Your task to perform on an android device: Search for "macbook" on walmart, select the first entry, add it to the cart, then select checkout. Image 0: 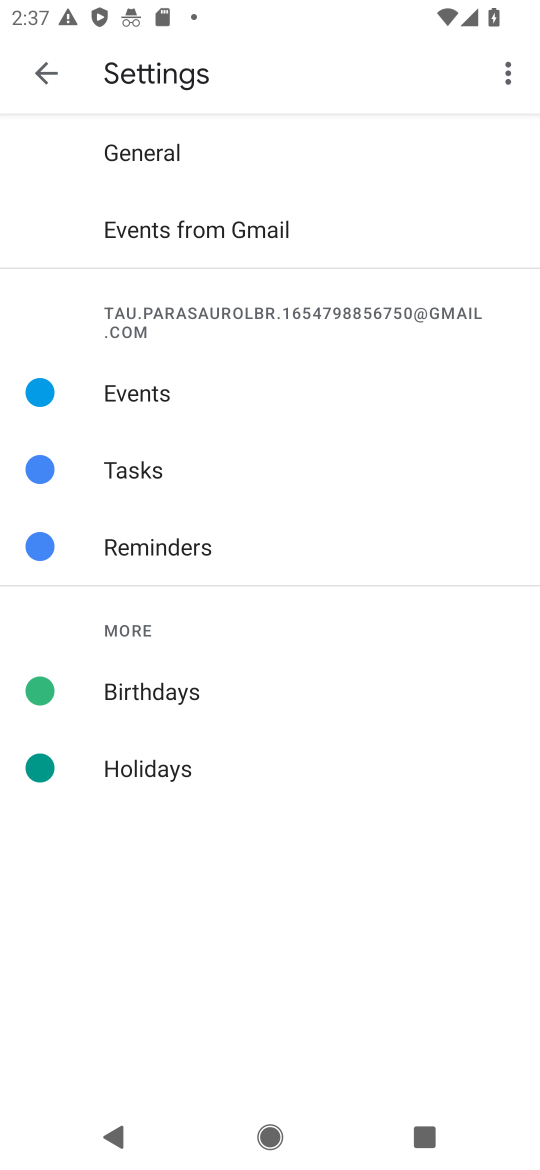
Step 0: press home button
Your task to perform on an android device: Search for "macbook" on walmart, select the first entry, add it to the cart, then select checkout. Image 1: 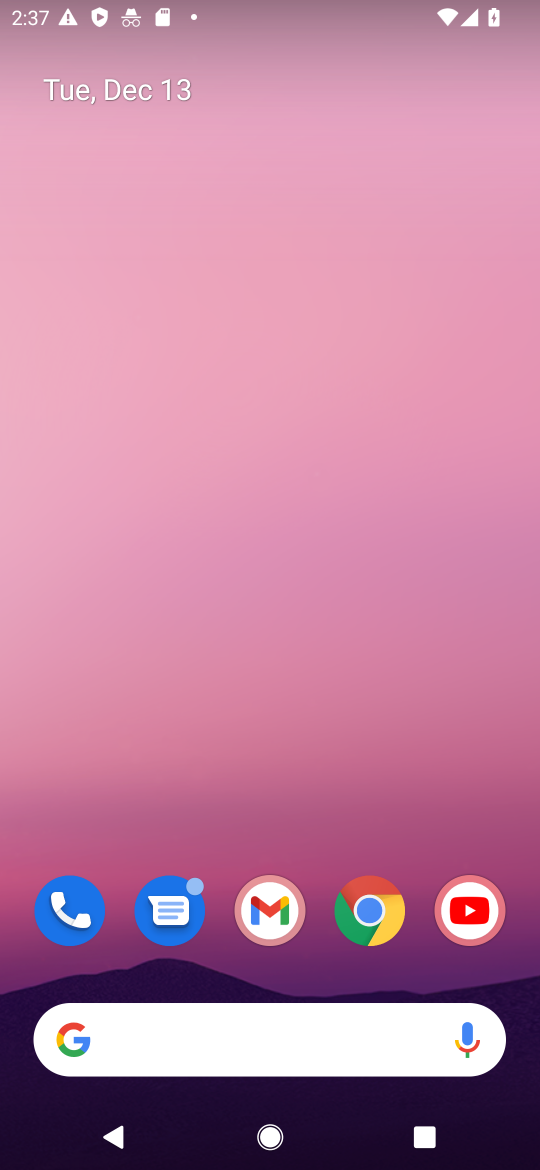
Step 1: click (364, 902)
Your task to perform on an android device: Search for "macbook" on walmart, select the first entry, add it to the cart, then select checkout. Image 2: 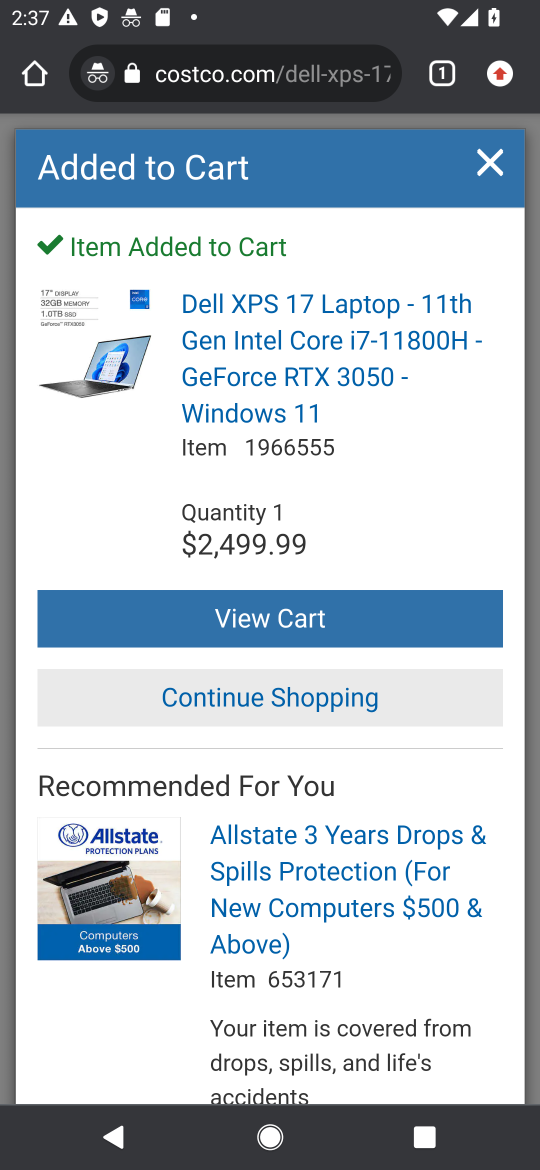
Step 2: click (249, 64)
Your task to perform on an android device: Search for "macbook" on walmart, select the first entry, add it to the cart, then select checkout. Image 3: 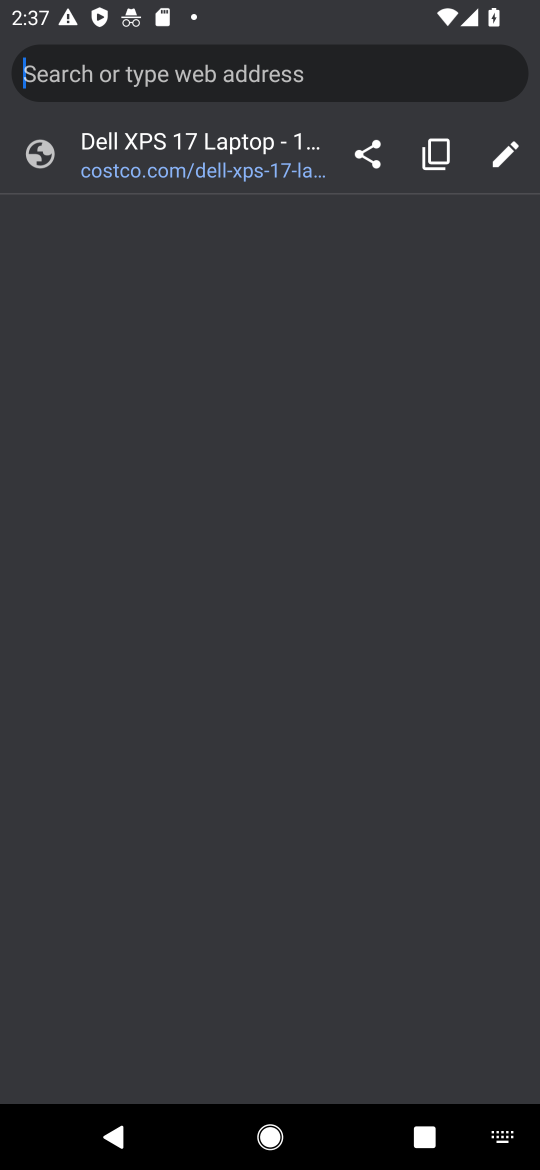
Step 3: type "WALMART"
Your task to perform on an android device: Search for "macbook" on walmart, select the first entry, add it to the cart, then select checkout. Image 4: 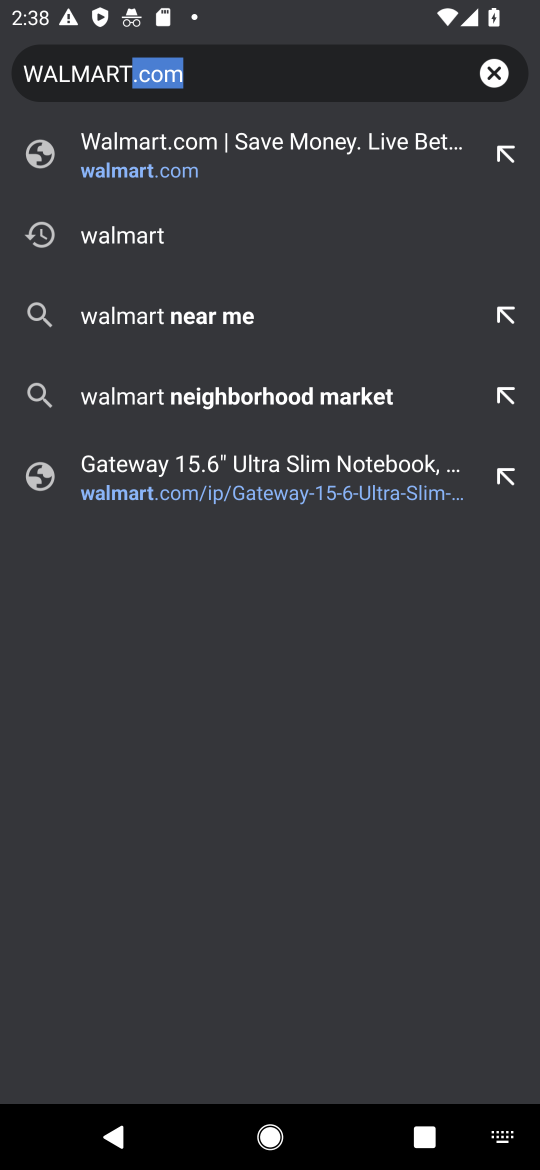
Step 4: click (161, 150)
Your task to perform on an android device: Search for "macbook" on walmart, select the first entry, add it to the cart, then select checkout. Image 5: 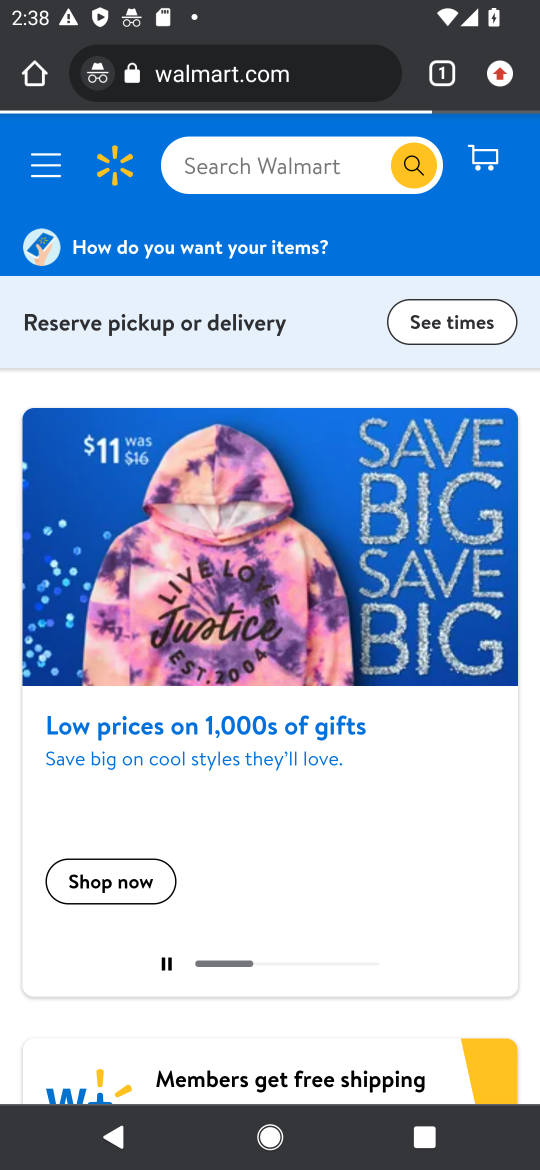
Step 5: click (298, 170)
Your task to perform on an android device: Search for "macbook" on walmart, select the first entry, add it to the cart, then select checkout. Image 6: 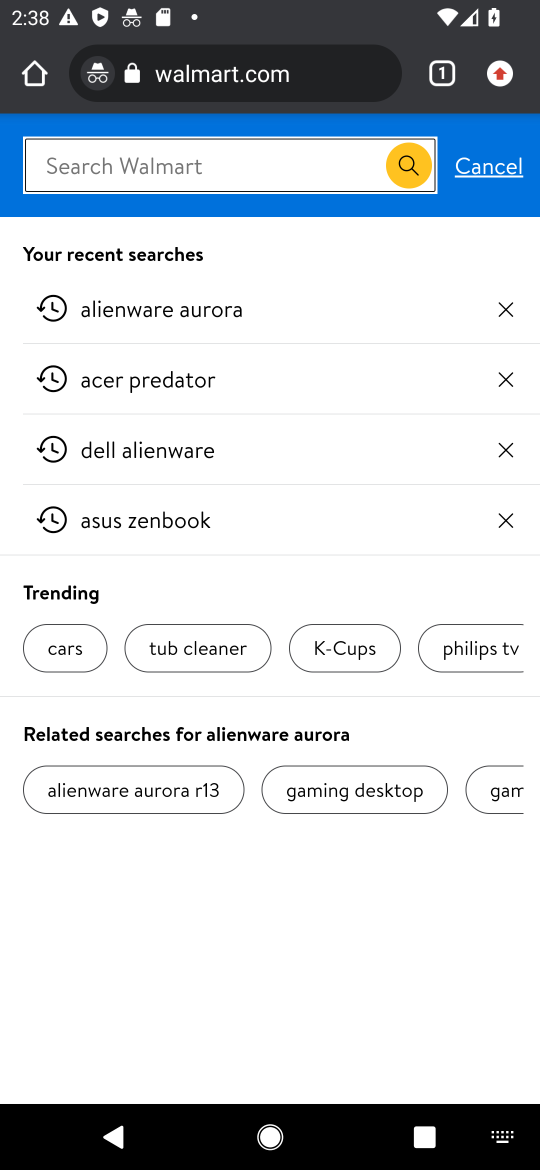
Step 6: type "MACBOOK"
Your task to perform on an android device: Search for "macbook" on walmart, select the first entry, add it to the cart, then select checkout. Image 7: 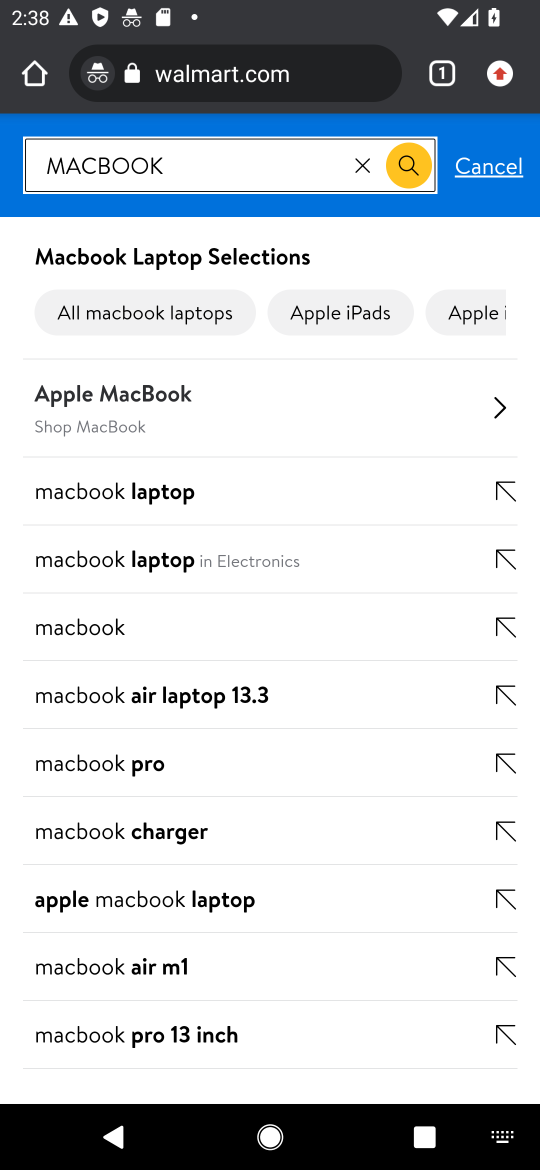
Step 7: click (158, 401)
Your task to perform on an android device: Search for "macbook" on walmart, select the first entry, add it to the cart, then select checkout. Image 8: 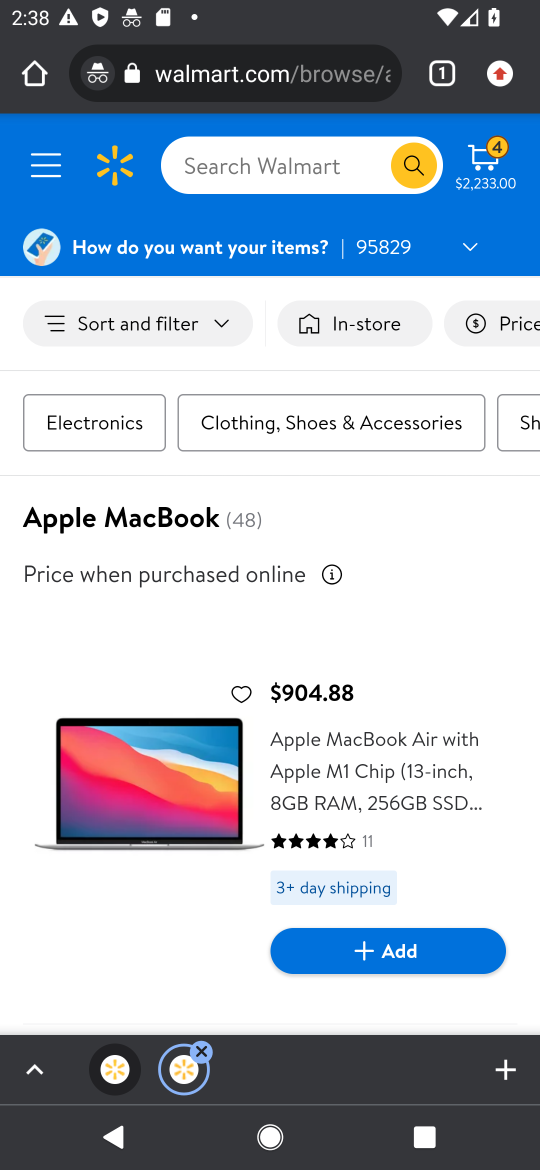
Step 8: click (368, 934)
Your task to perform on an android device: Search for "macbook" on walmart, select the first entry, add it to the cart, then select checkout. Image 9: 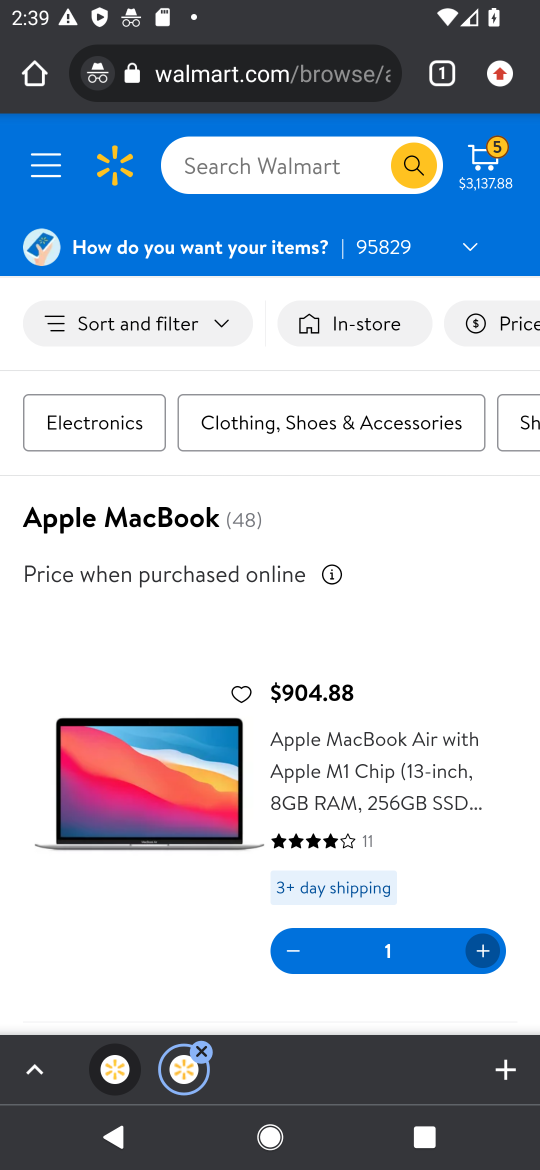
Step 9: click (482, 153)
Your task to perform on an android device: Search for "macbook" on walmart, select the first entry, add it to the cart, then select checkout. Image 10: 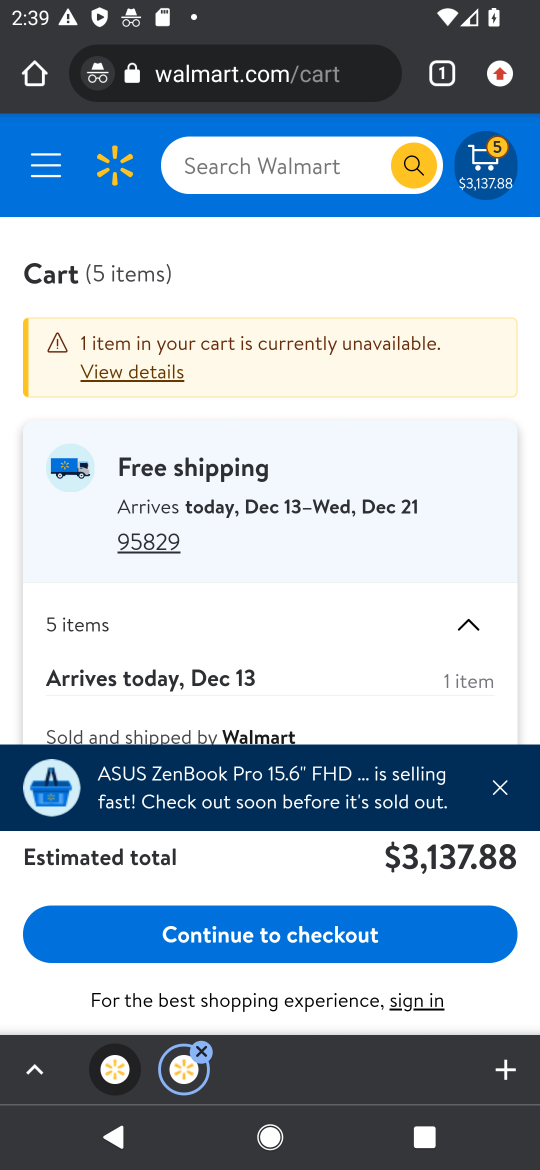
Step 10: click (297, 931)
Your task to perform on an android device: Search for "macbook" on walmart, select the first entry, add it to the cart, then select checkout. Image 11: 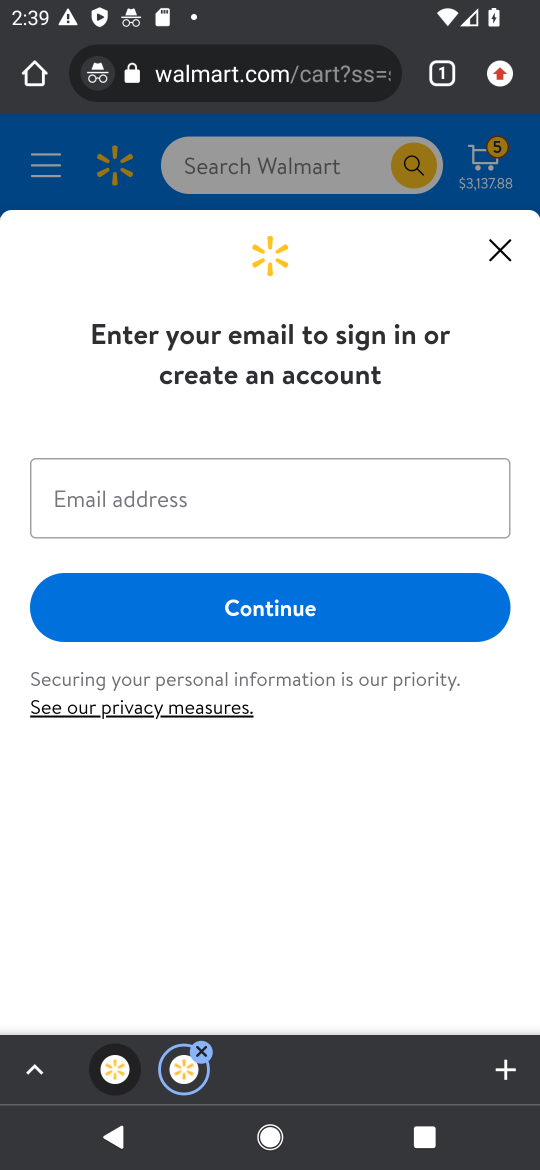
Step 11: task complete